Your task to perform on an android device: toggle translation in the chrome app Image 0: 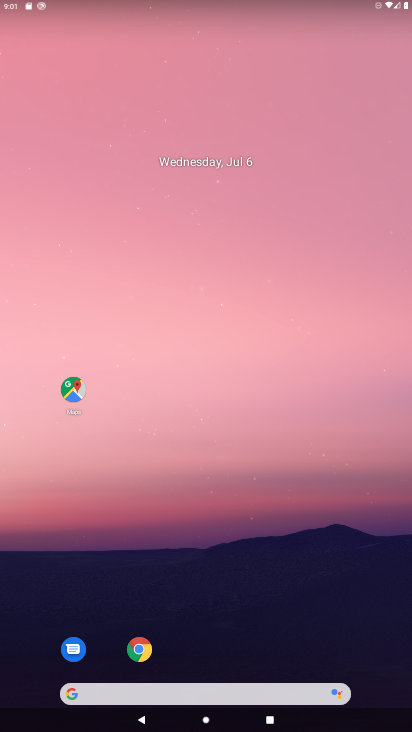
Step 0: drag from (322, 663) to (271, 304)
Your task to perform on an android device: toggle translation in the chrome app Image 1: 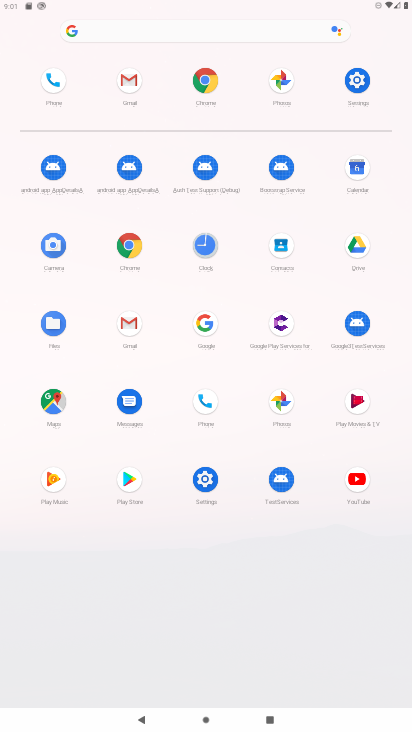
Step 1: click (131, 237)
Your task to perform on an android device: toggle translation in the chrome app Image 2: 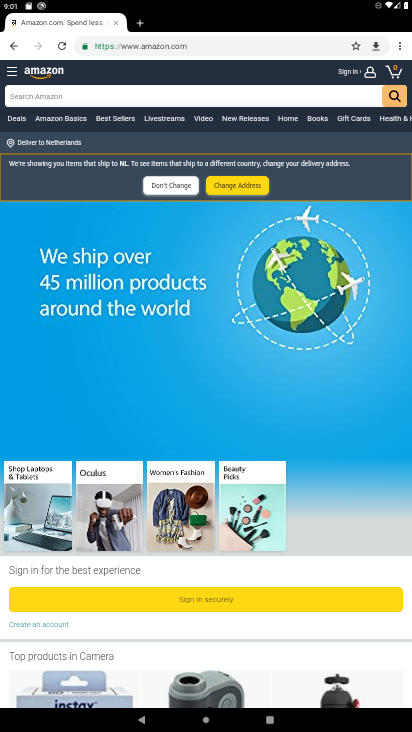
Step 2: drag from (400, 48) to (301, 313)
Your task to perform on an android device: toggle translation in the chrome app Image 3: 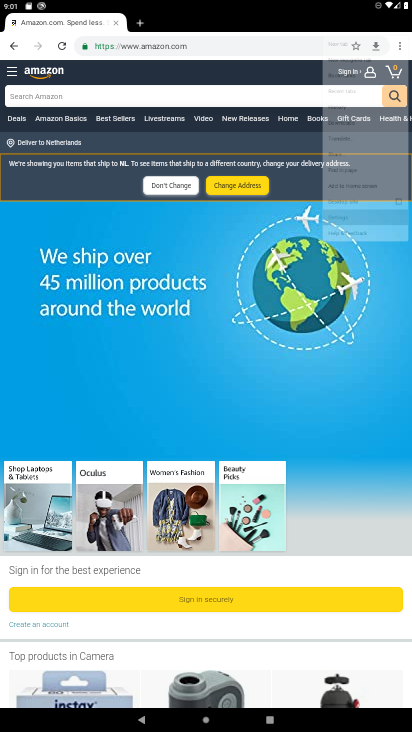
Step 3: click (305, 310)
Your task to perform on an android device: toggle translation in the chrome app Image 4: 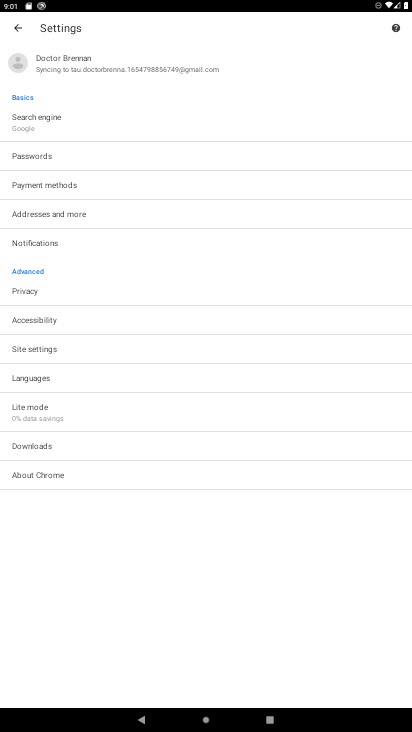
Step 4: press back button
Your task to perform on an android device: toggle translation in the chrome app Image 5: 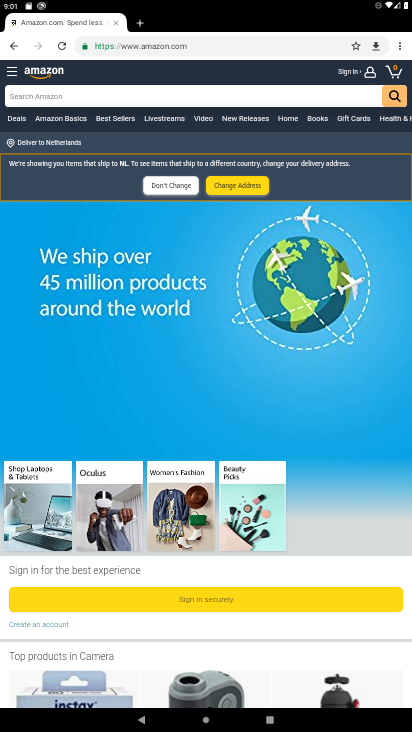
Step 5: click (400, 49)
Your task to perform on an android device: toggle translation in the chrome app Image 6: 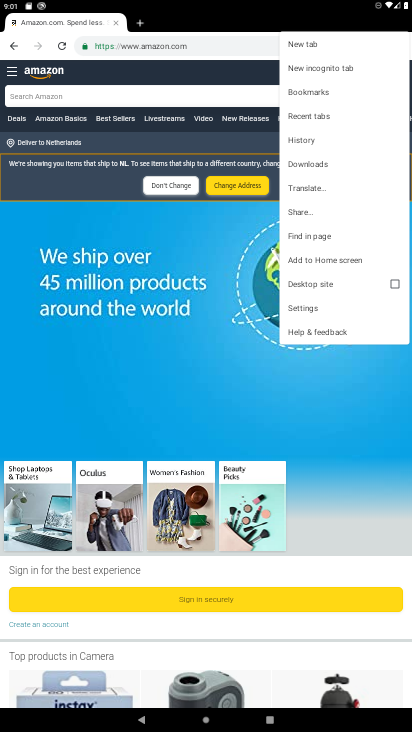
Step 6: click (315, 185)
Your task to perform on an android device: toggle translation in the chrome app Image 7: 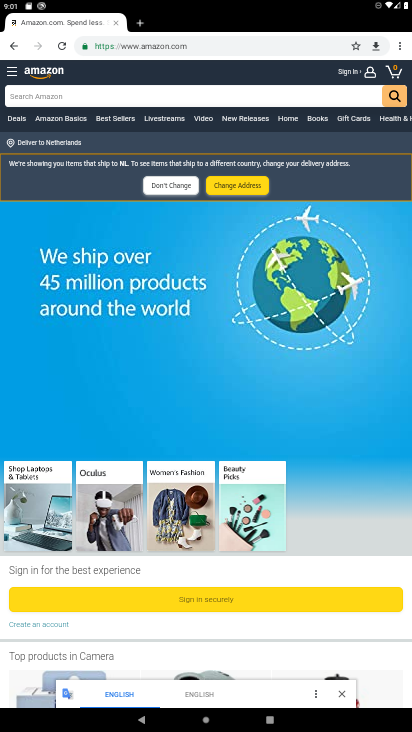
Step 7: drag from (400, 53) to (299, 195)
Your task to perform on an android device: toggle translation in the chrome app Image 8: 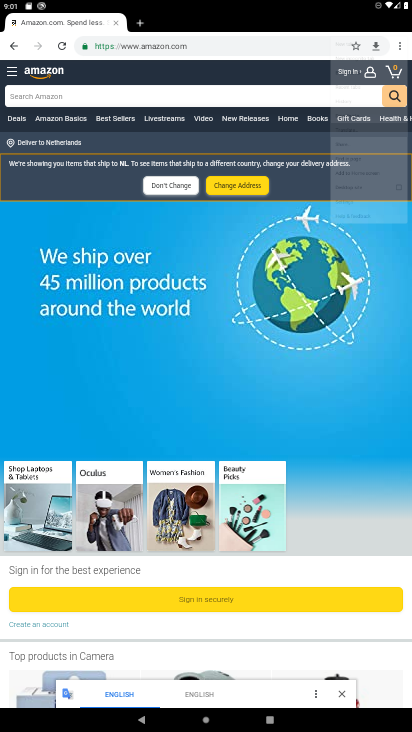
Step 8: click (303, 188)
Your task to perform on an android device: toggle translation in the chrome app Image 9: 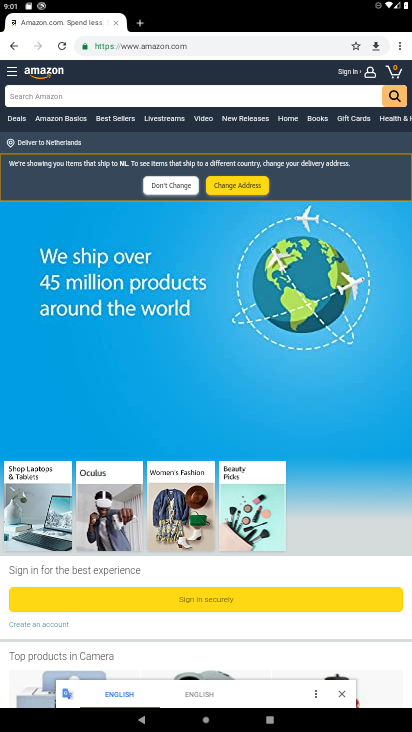
Step 9: click (400, 42)
Your task to perform on an android device: toggle translation in the chrome app Image 10: 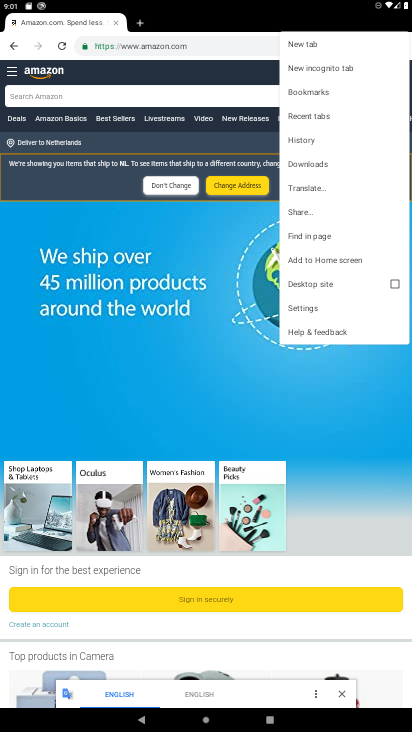
Step 10: click (312, 304)
Your task to perform on an android device: toggle translation in the chrome app Image 11: 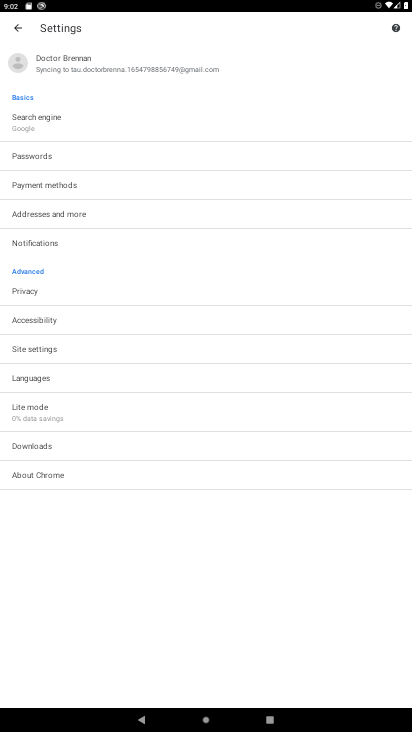
Step 11: click (47, 375)
Your task to perform on an android device: toggle translation in the chrome app Image 12: 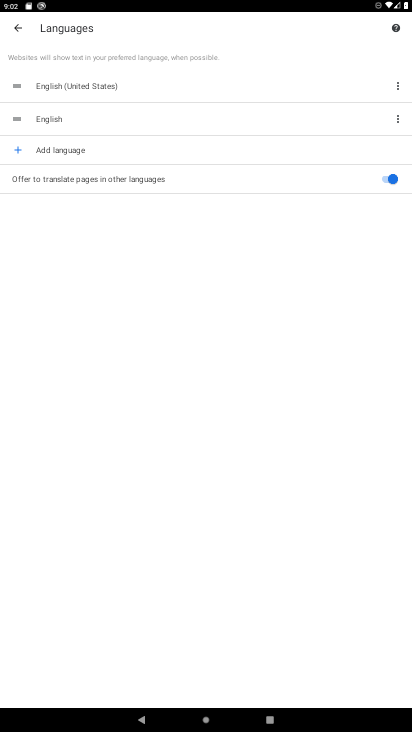
Step 12: click (389, 177)
Your task to perform on an android device: toggle translation in the chrome app Image 13: 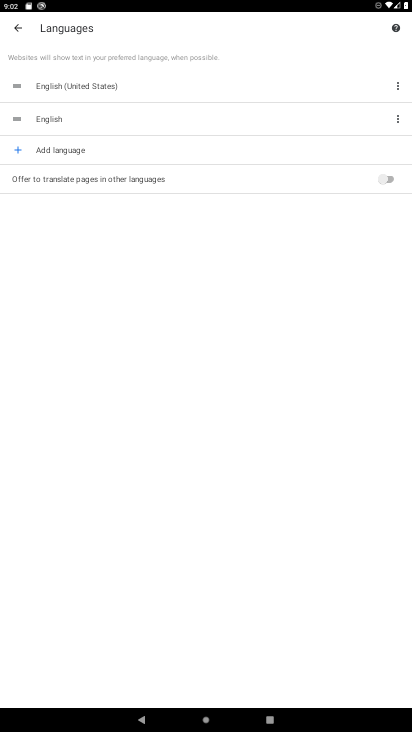
Step 13: task complete